Your task to perform on an android device: change the clock display to digital Image 0: 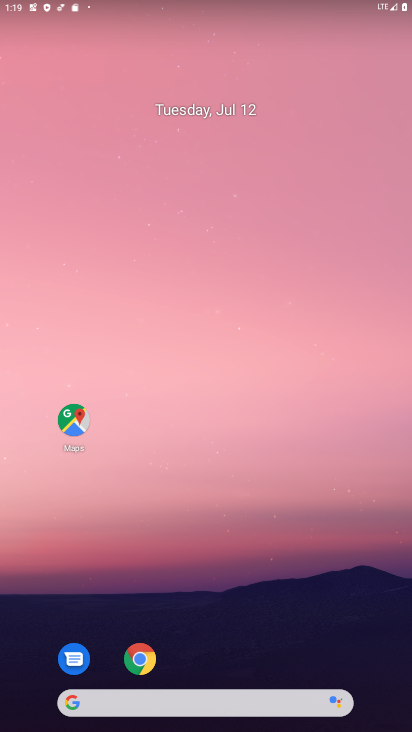
Step 0: drag from (222, 730) to (222, 100)
Your task to perform on an android device: change the clock display to digital Image 1: 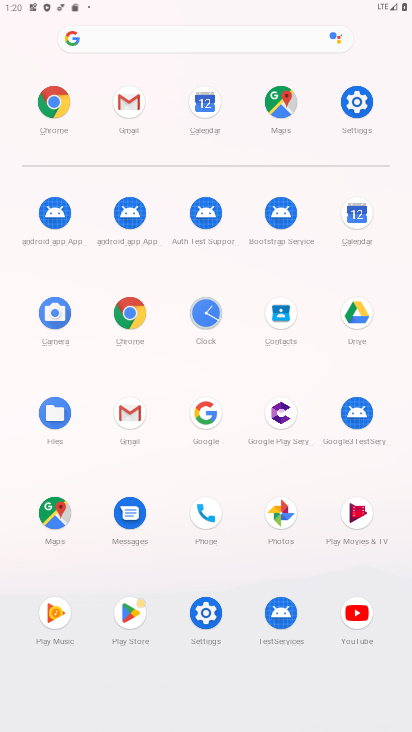
Step 1: click (203, 314)
Your task to perform on an android device: change the clock display to digital Image 2: 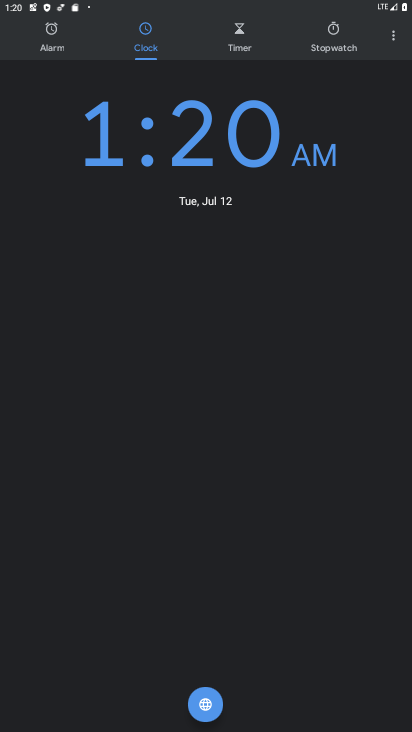
Step 2: click (395, 44)
Your task to perform on an android device: change the clock display to digital Image 3: 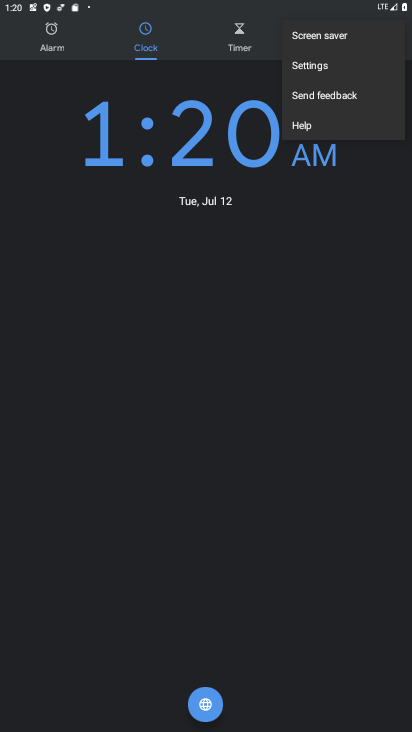
Step 3: click (321, 59)
Your task to perform on an android device: change the clock display to digital Image 4: 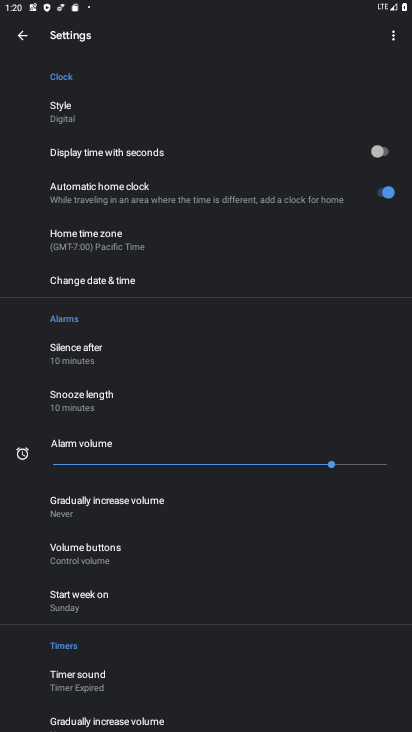
Step 4: task complete